Your task to perform on an android device: Go to location settings Image 0: 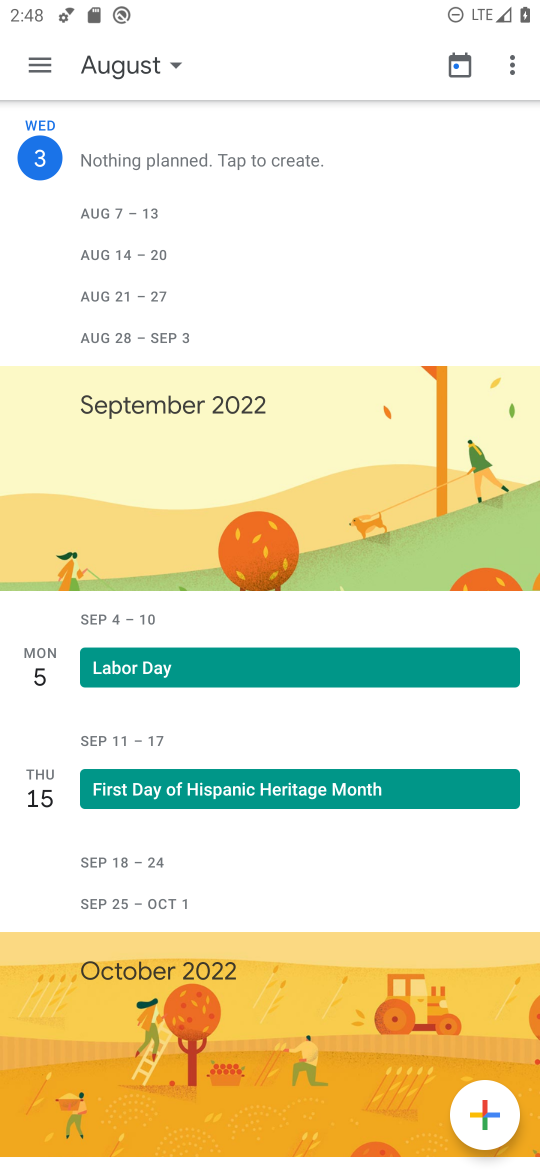
Step 0: press home button
Your task to perform on an android device: Go to location settings Image 1: 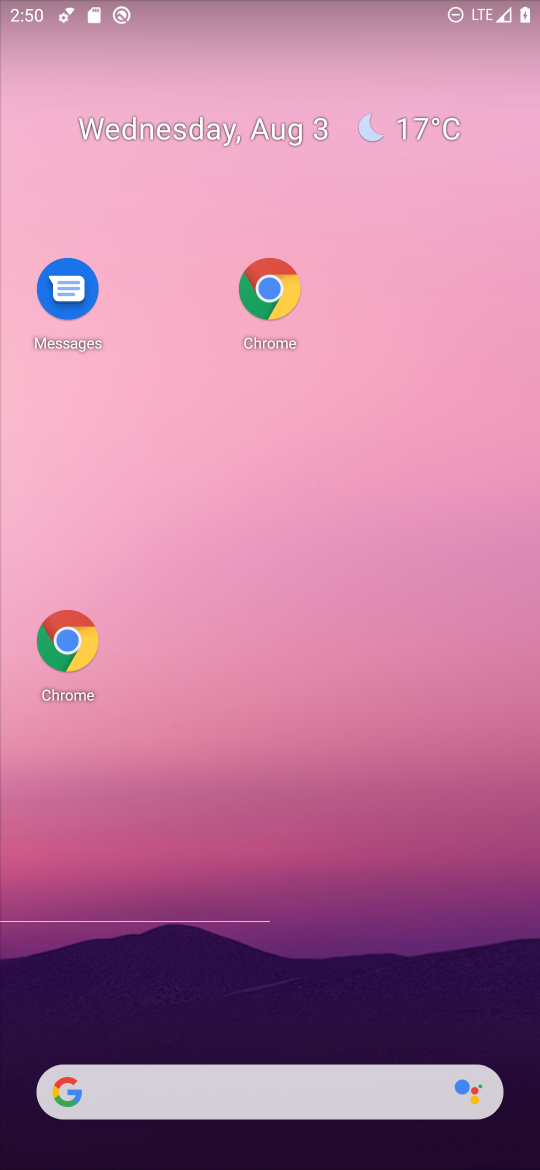
Step 1: drag from (261, 595) to (261, 34)
Your task to perform on an android device: Go to location settings Image 2: 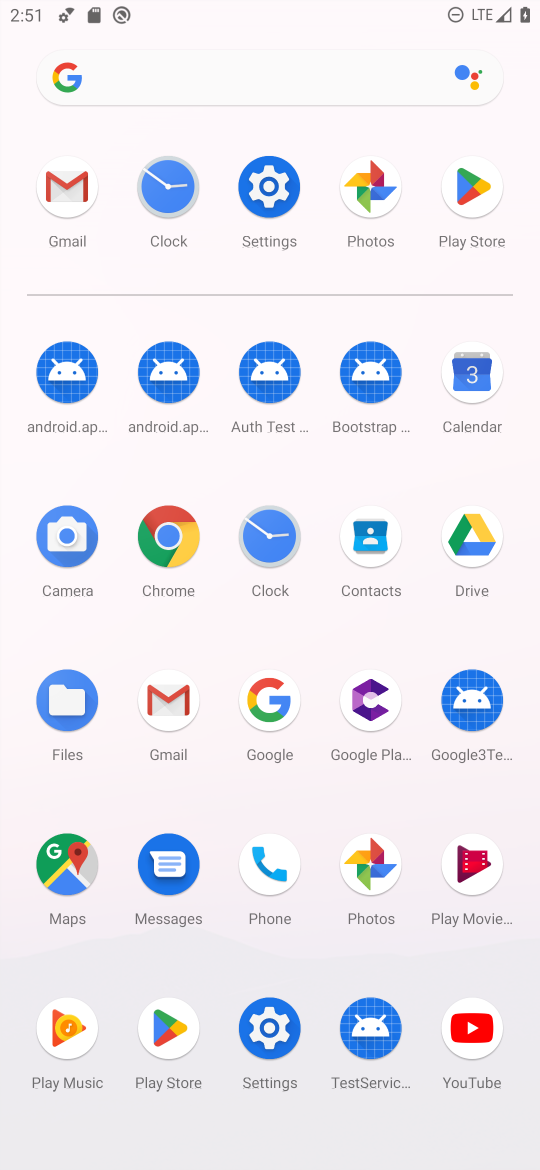
Step 2: click (257, 228)
Your task to perform on an android device: Go to location settings Image 3: 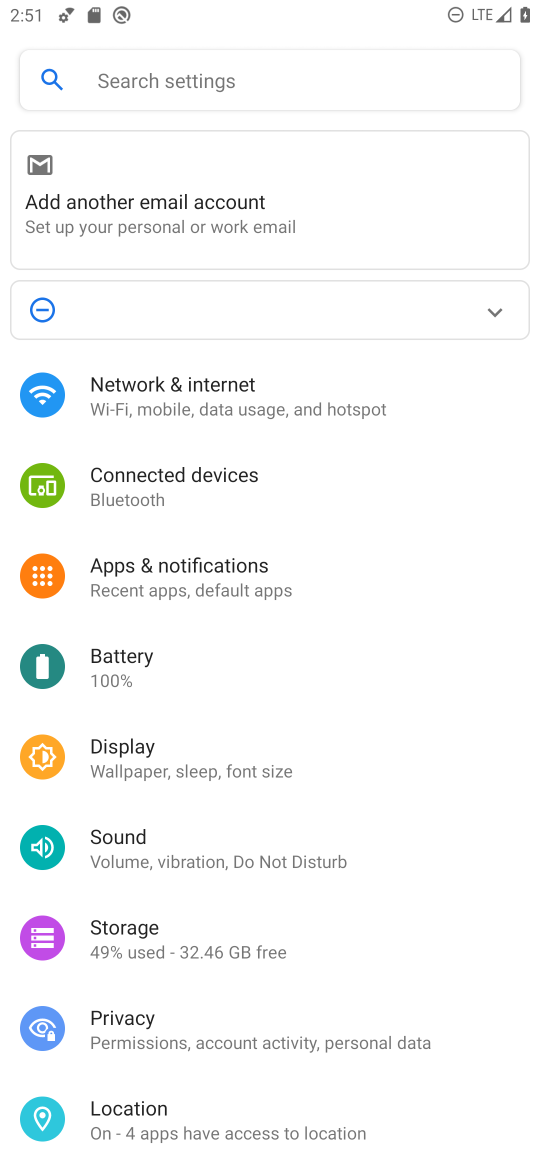
Step 3: click (216, 1117)
Your task to perform on an android device: Go to location settings Image 4: 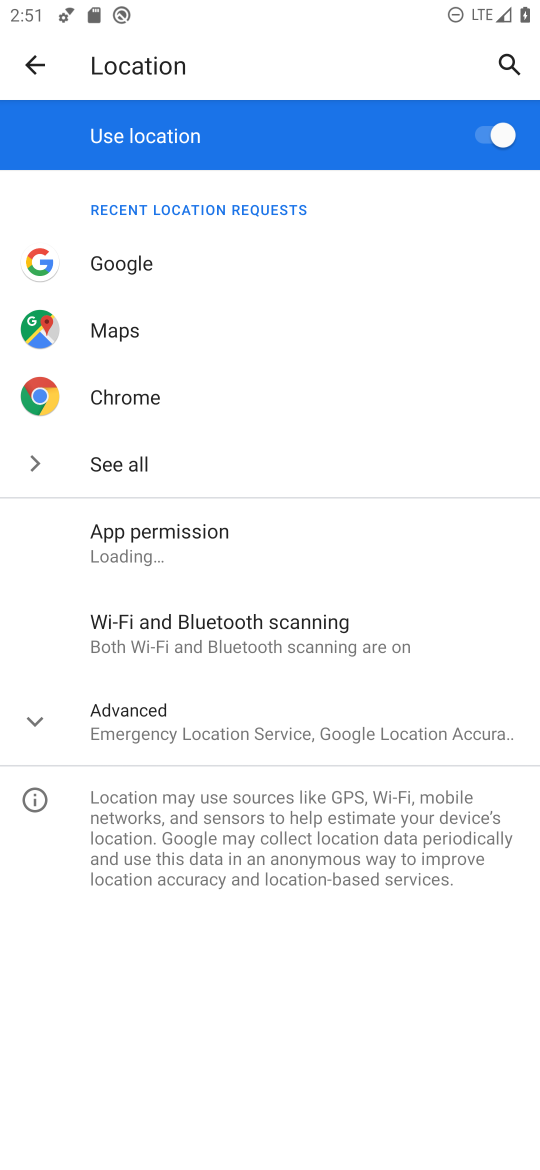
Step 4: task complete